Your task to perform on an android device: Clear the cart on walmart. Search for "usb-b" on walmart, select the first entry, add it to the cart, then select checkout. Image 0: 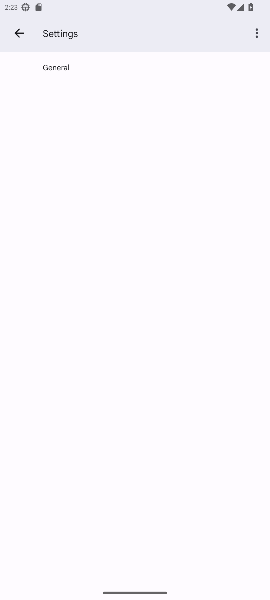
Step 0: press home button
Your task to perform on an android device: Clear the cart on walmart. Search for "usb-b" on walmart, select the first entry, add it to the cart, then select checkout. Image 1: 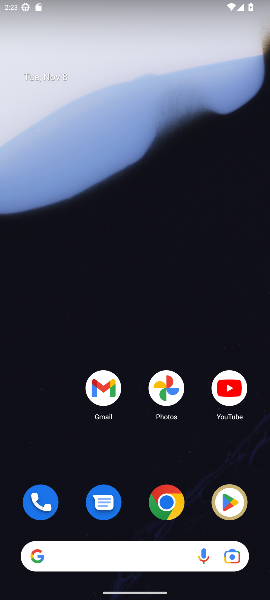
Step 1: drag from (120, 540) to (120, 260)
Your task to perform on an android device: Clear the cart on walmart. Search for "usb-b" on walmart, select the first entry, add it to the cart, then select checkout. Image 2: 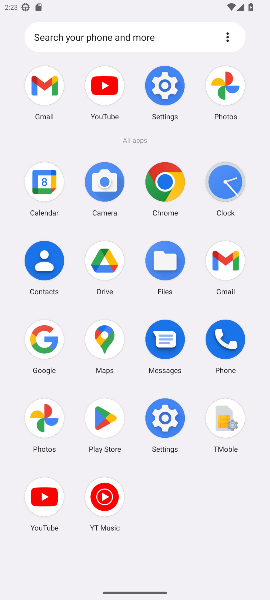
Step 2: click (44, 343)
Your task to perform on an android device: Clear the cart on walmart. Search for "usb-b" on walmart, select the first entry, add it to the cart, then select checkout. Image 3: 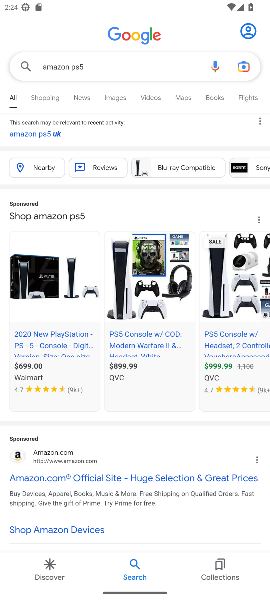
Step 3: click (160, 69)
Your task to perform on an android device: Clear the cart on walmart. Search for "usb-b" on walmart, select the first entry, add it to the cart, then select checkout. Image 4: 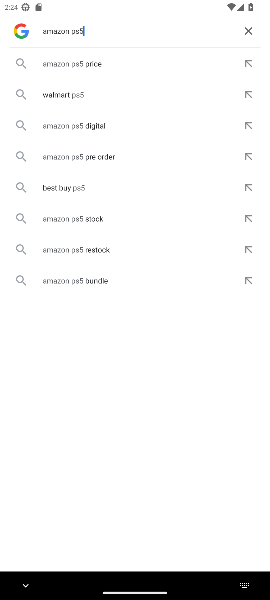
Step 4: click (253, 36)
Your task to perform on an android device: Clear the cart on walmart. Search for "usb-b" on walmart, select the first entry, add it to the cart, then select checkout. Image 5: 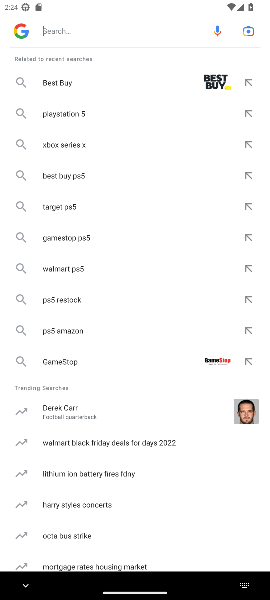
Step 5: click (122, 24)
Your task to perform on an android device: Clear the cart on walmart. Search for "usb-b" on walmart, select the first entry, add it to the cart, then select checkout. Image 6: 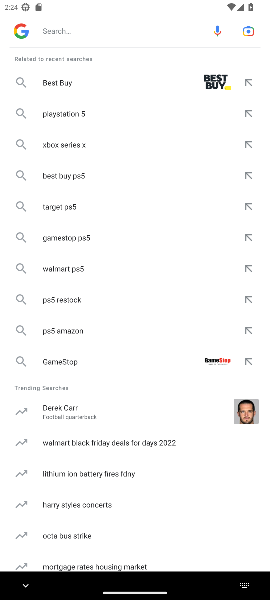
Step 6: type "walmart "
Your task to perform on an android device: Clear the cart on walmart. Search for "usb-b" on walmart, select the first entry, add it to the cart, then select checkout. Image 7: 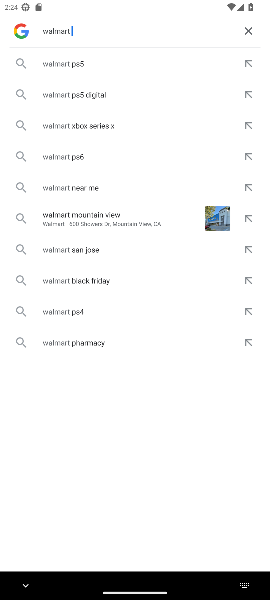
Step 7: click (62, 59)
Your task to perform on an android device: Clear the cart on walmart. Search for "usb-b" on walmart, select the first entry, add it to the cart, then select checkout. Image 8: 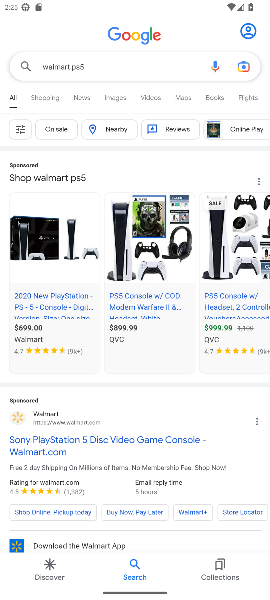
Step 8: click (16, 420)
Your task to perform on an android device: Clear the cart on walmart. Search for "usb-b" on walmart, select the first entry, add it to the cart, then select checkout. Image 9: 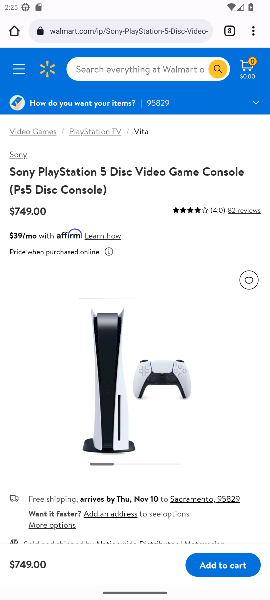
Step 9: click (135, 66)
Your task to perform on an android device: Clear the cart on walmart. Search for "usb-b" on walmart, select the first entry, add it to the cart, then select checkout. Image 10: 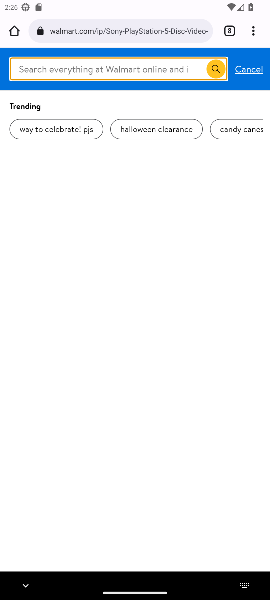
Step 10: type ""usb-b "
Your task to perform on an android device: Clear the cart on walmart. Search for "usb-b" on walmart, select the first entry, add it to the cart, then select checkout. Image 11: 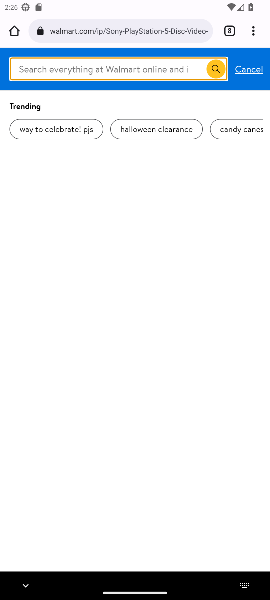
Step 11: click (73, 65)
Your task to perform on an android device: Clear the cart on walmart. Search for "usb-b" on walmart, select the first entry, add it to the cart, then select checkout. Image 12: 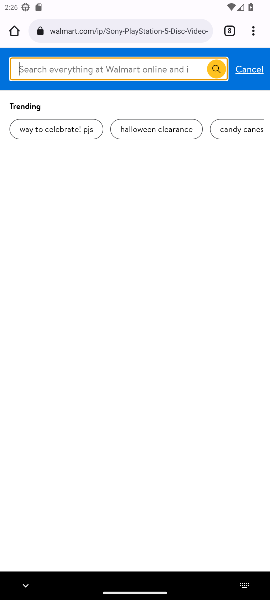
Step 12: type ""usb-b "
Your task to perform on an android device: Clear the cart on walmart. Search for "usb-b" on walmart, select the first entry, add it to the cart, then select checkout. Image 13: 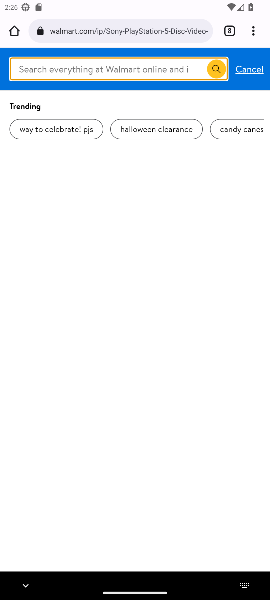
Step 13: click (173, 67)
Your task to perform on an android device: Clear the cart on walmart. Search for "usb-b" on walmart, select the first entry, add it to the cart, then select checkout. Image 14: 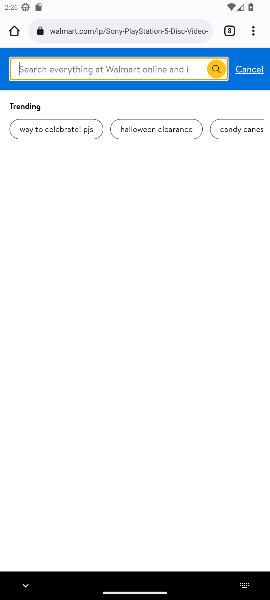
Step 14: click (173, 67)
Your task to perform on an android device: Clear the cart on walmart. Search for "usb-b" on walmart, select the first entry, add it to the cart, then select checkout. Image 15: 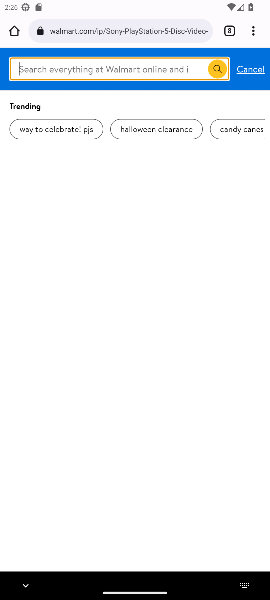
Step 15: click (218, 67)
Your task to perform on an android device: Clear the cart on walmart. Search for "usb-b" on walmart, select the first entry, add it to the cart, then select checkout. Image 16: 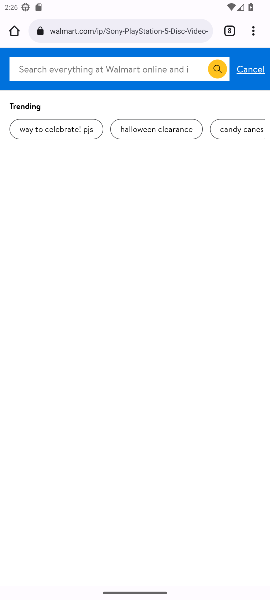
Step 16: click (245, 68)
Your task to perform on an android device: Clear the cart on walmart. Search for "usb-b" on walmart, select the first entry, add it to the cart, then select checkout. Image 17: 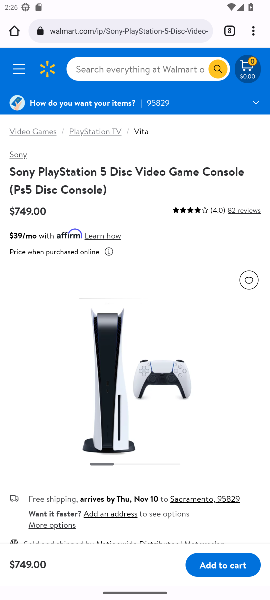
Step 17: click (120, 66)
Your task to perform on an android device: Clear the cart on walmart. Search for "usb-b" on walmart, select the first entry, add it to the cart, then select checkout. Image 18: 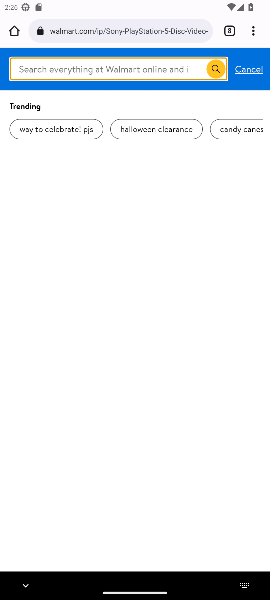
Step 18: type "usb "
Your task to perform on an android device: Clear the cart on walmart. Search for "usb-b" on walmart, select the first entry, add it to the cart, then select checkout. Image 19: 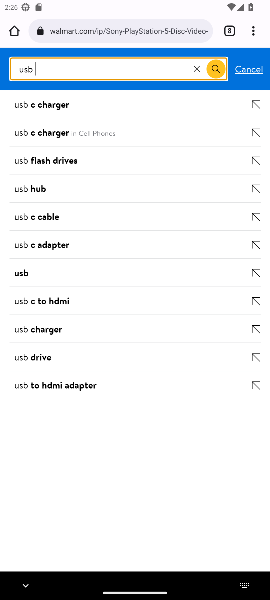
Step 19: click (49, 269)
Your task to perform on an android device: Clear the cart on walmart. Search for "usb-b" on walmart, select the first entry, add it to the cart, then select checkout. Image 20: 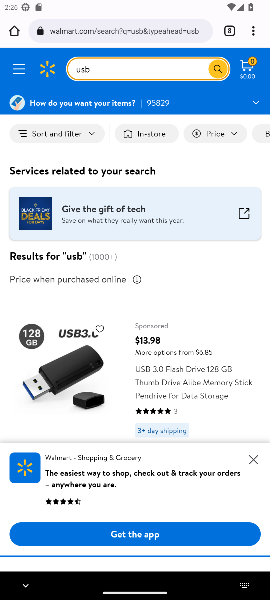
Step 20: click (256, 459)
Your task to perform on an android device: Clear the cart on walmart. Search for "usb-b" on walmart, select the first entry, add it to the cart, then select checkout. Image 21: 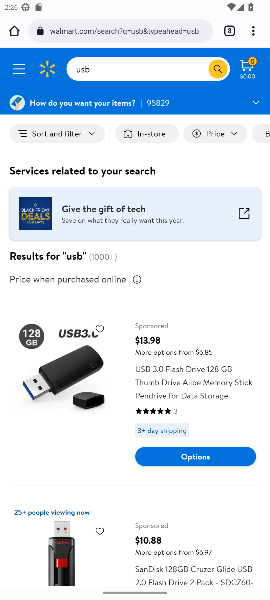
Step 21: drag from (115, 530) to (123, 367)
Your task to perform on an android device: Clear the cart on walmart. Search for "usb-b" on walmart, select the first entry, add it to the cart, then select checkout. Image 22: 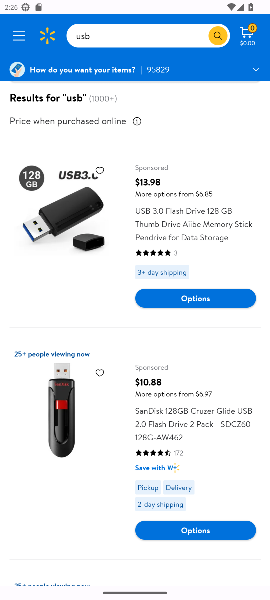
Step 22: click (187, 293)
Your task to perform on an android device: Clear the cart on walmart. Search for "usb-b" on walmart, select the first entry, add it to the cart, then select checkout. Image 23: 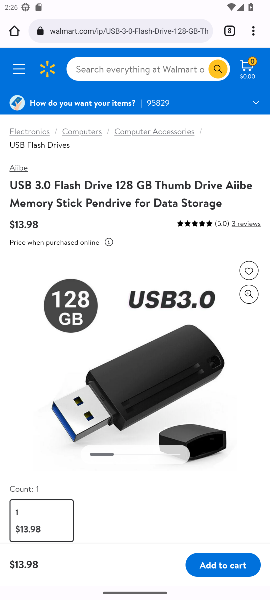
Step 23: click (212, 553)
Your task to perform on an android device: Clear the cart on walmart. Search for "usb-b" on walmart, select the first entry, add it to the cart, then select checkout. Image 24: 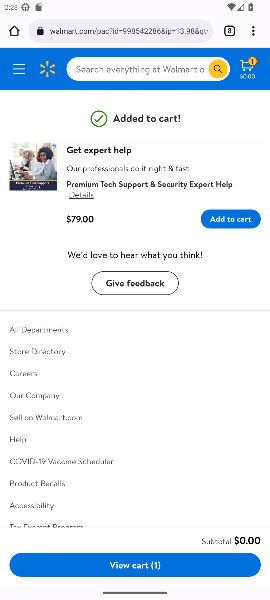
Step 24: click (249, 220)
Your task to perform on an android device: Clear the cart on walmart. Search for "usb-b" on walmart, select the first entry, add it to the cart, then select checkout. Image 25: 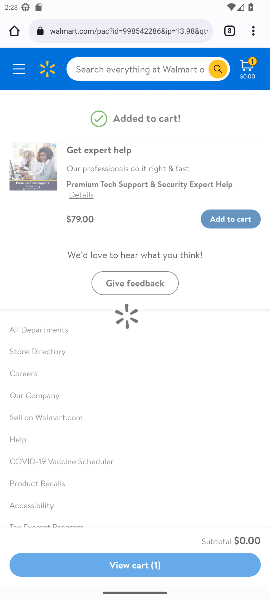
Step 25: task complete